Your task to perform on an android device: Open CNN.com Image 0: 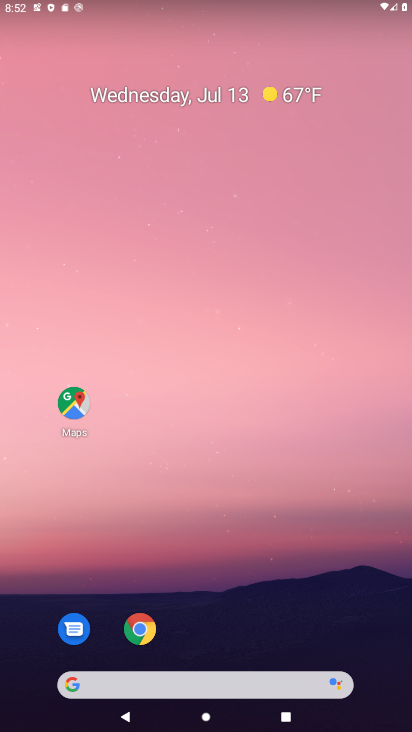
Step 0: click (140, 617)
Your task to perform on an android device: Open CNN.com Image 1: 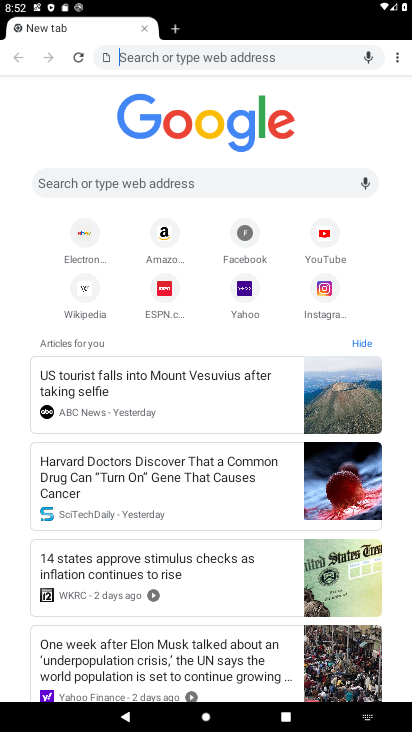
Step 1: click (226, 174)
Your task to perform on an android device: Open CNN.com Image 2: 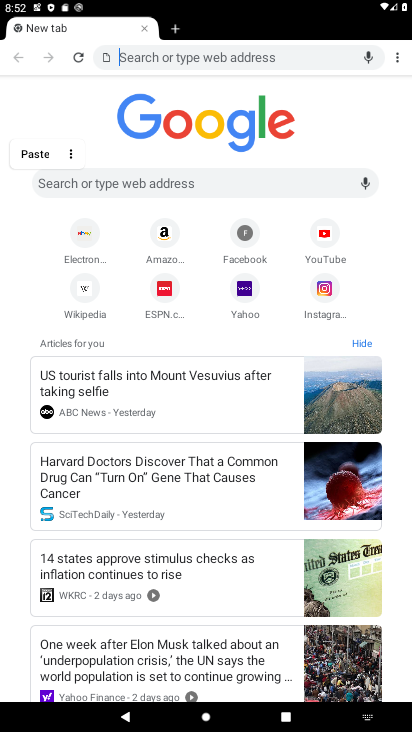
Step 2: type "CNN.com"
Your task to perform on an android device: Open CNN.com Image 3: 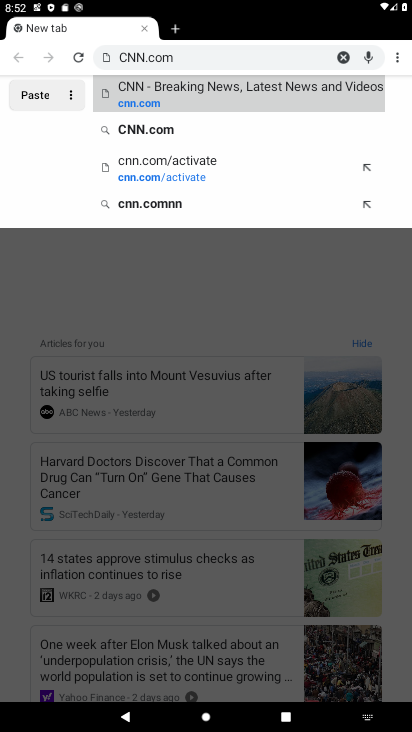
Step 3: click (183, 97)
Your task to perform on an android device: Open CNN.com Image 4: 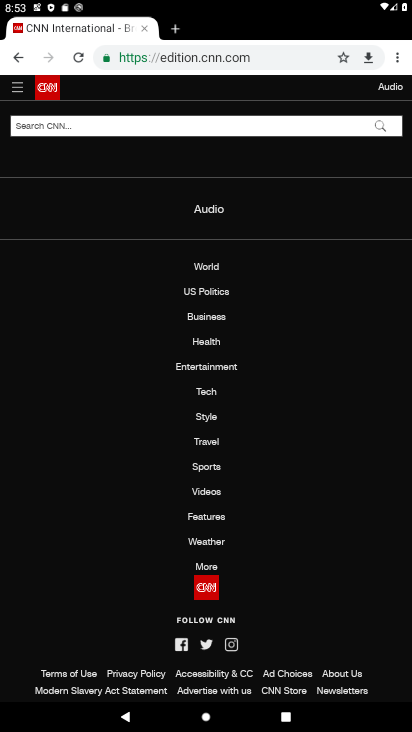
Step 4: task complete